Your task to perform on an android device: Find the nearest electronics store that's open now Image 0: 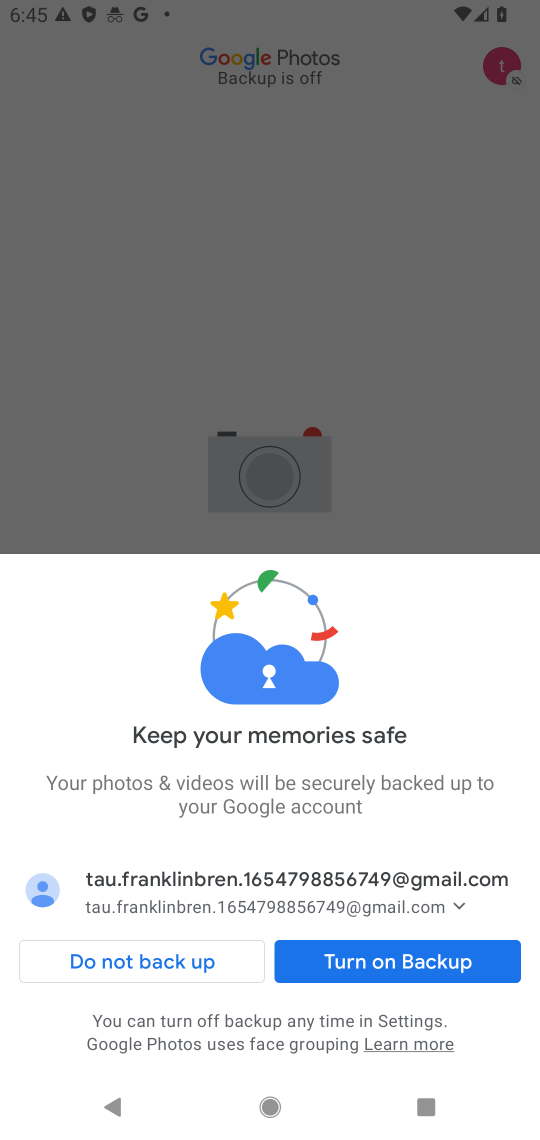
Step 0: press home button
Your task to perform on an android device: Find the nearest electronics store that's open now Image 1: 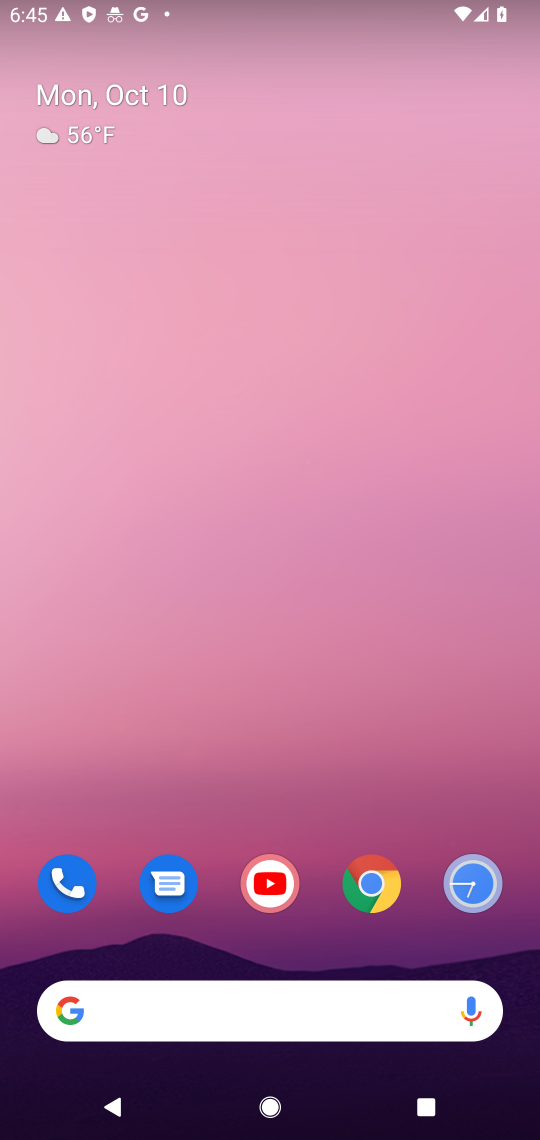
Step 1: drag from (416, 933) to (413, 535)
Your task to perform on an android device: Find the nearest electronics store that's open now Image 2: 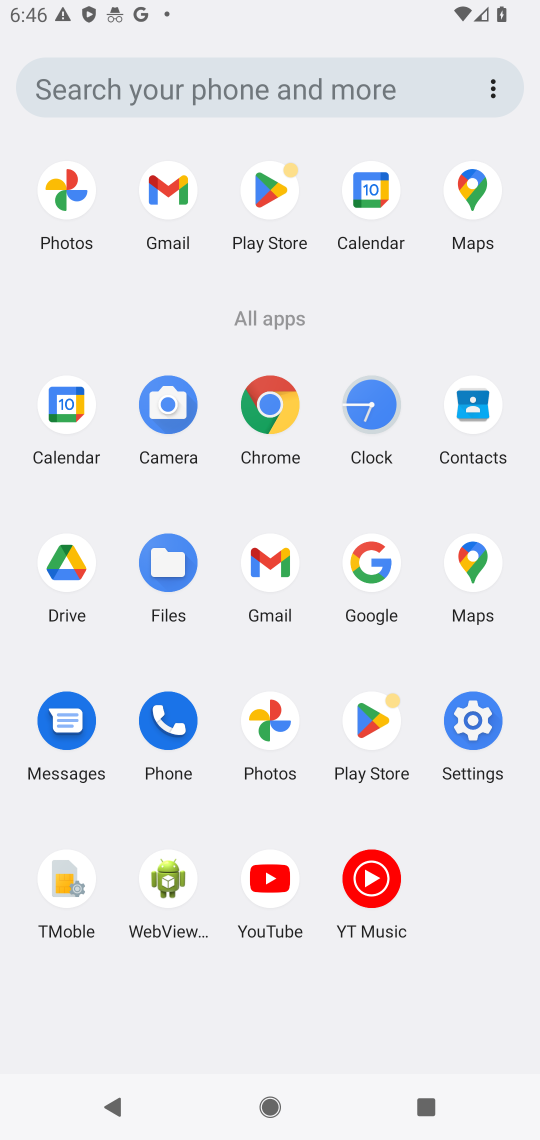
Step 2: click (380, 562)
Your task to perform on an android device: Find the nearest electronics store that's open now Image 3: 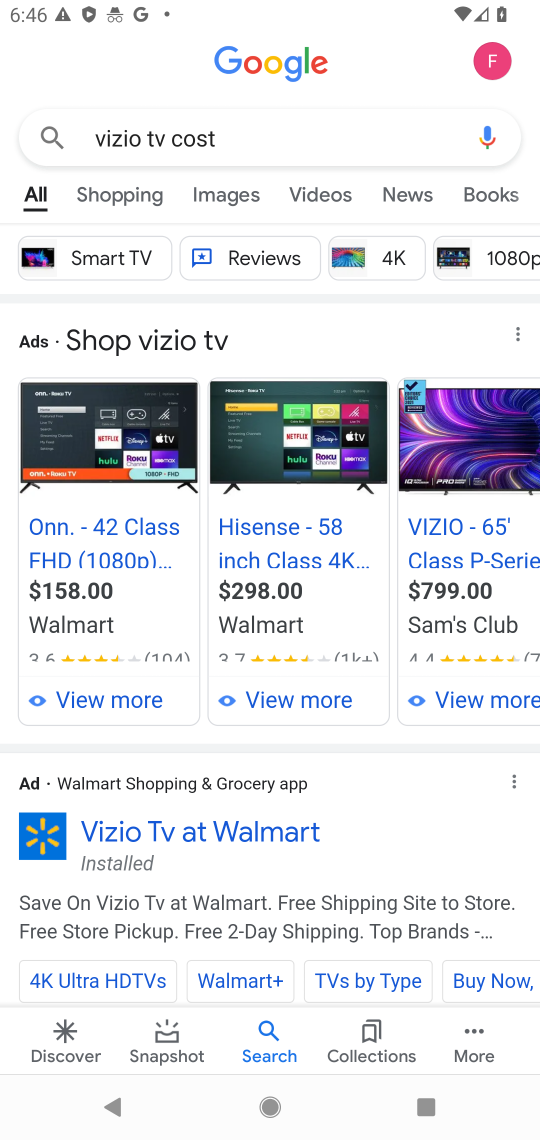
Step 3: click (339, 147)
Your task to perform on an android device: Find the nearest electronics store that's open now Image 4: 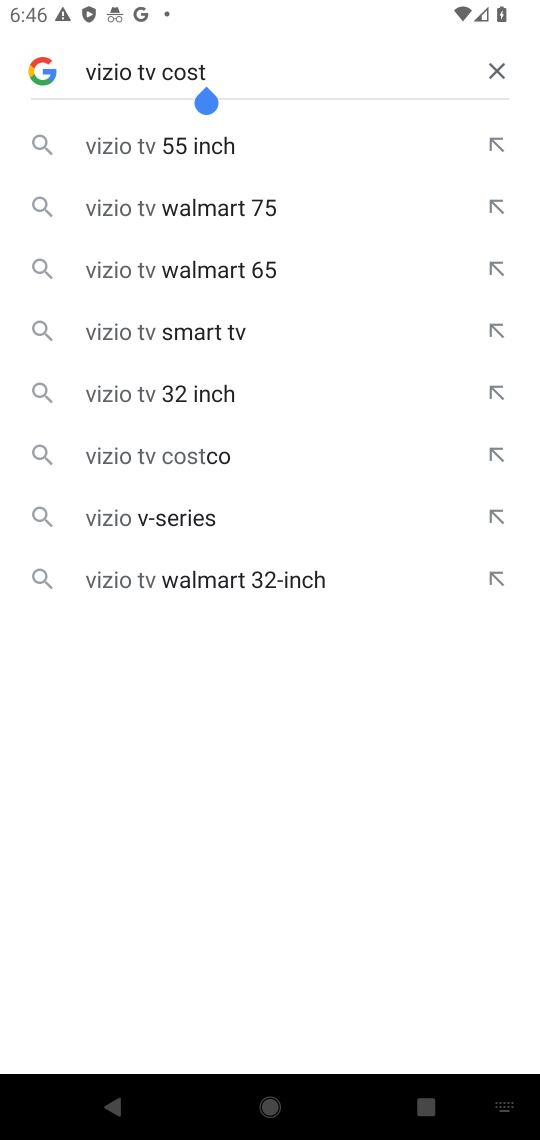
Step 4: click (495, 63)
Your task to perform on an android device: Find the nearest electronics store that's open now Image 5: 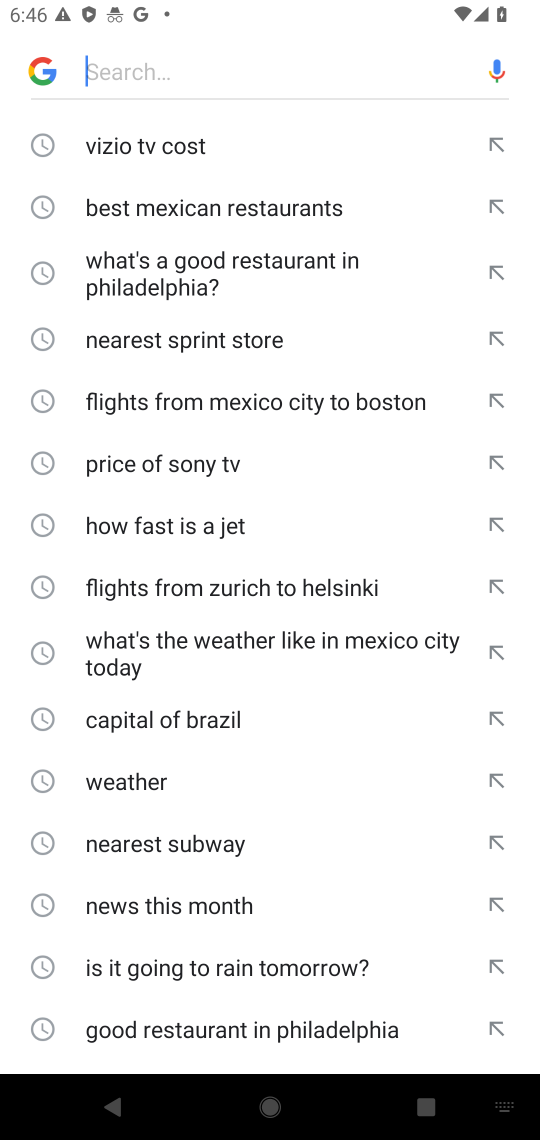
Step 5: type "nearest electronics store"
Your task to perform on an android device: Find the nearest electronics store that's open now Image 6: 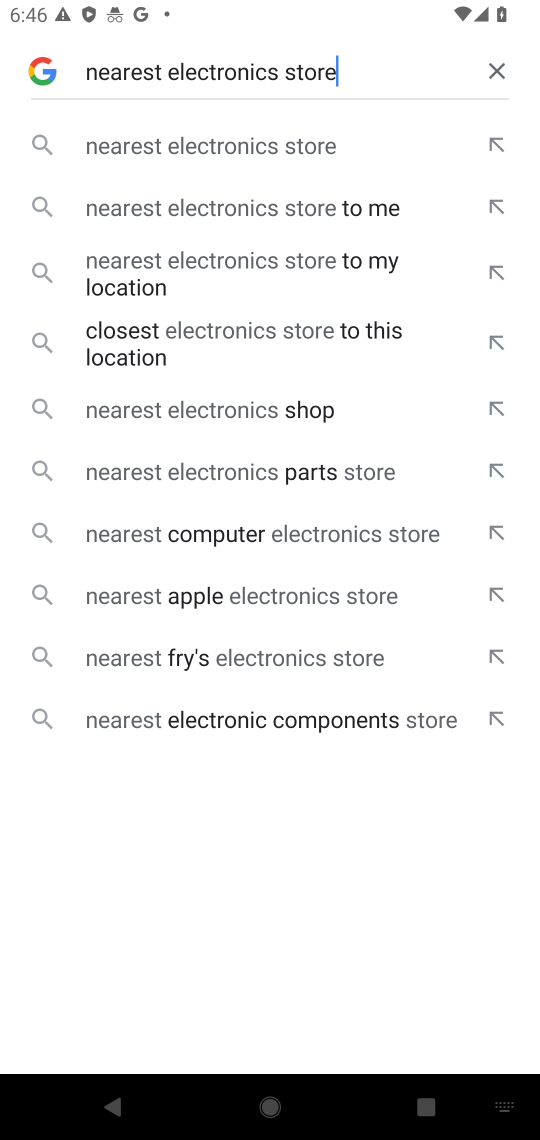
Step 6: click (293, 132)
Your task to perform on an android device: Find the nearest electronics store that's open now Image 7: 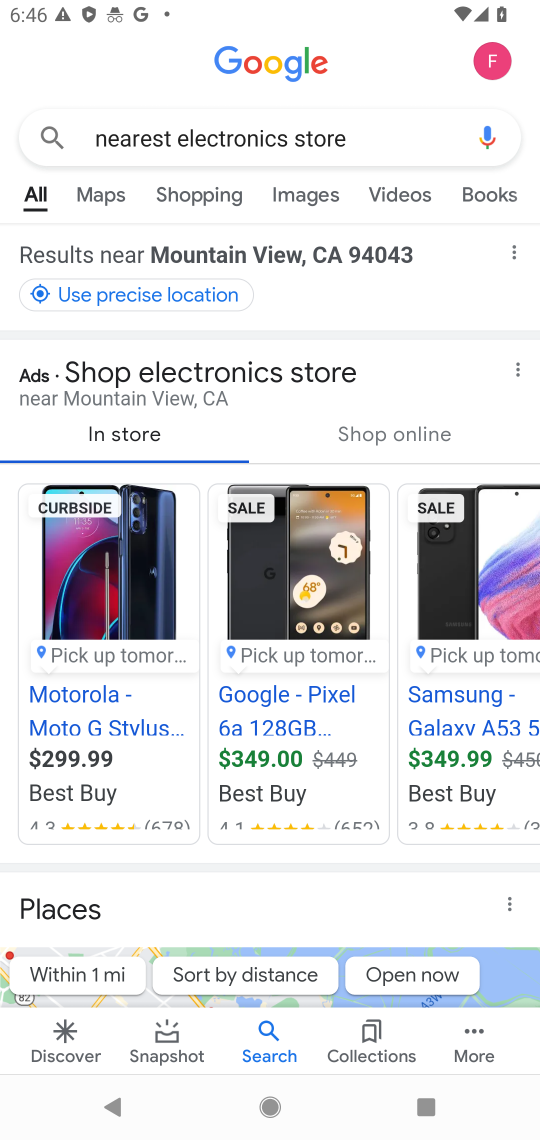
Step 7: task complete